Your task to perform on an android device: toggle show notifications on the lock screen Image 0: 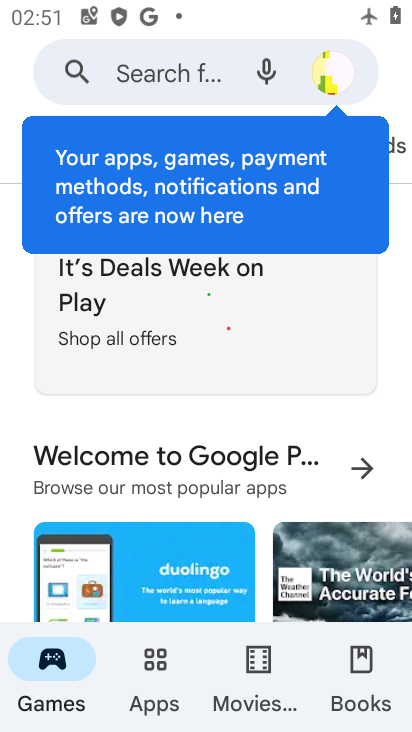
Step 0: press home button
Your task to perform on an android device: toggle show notifications on the lock screen Image 1: 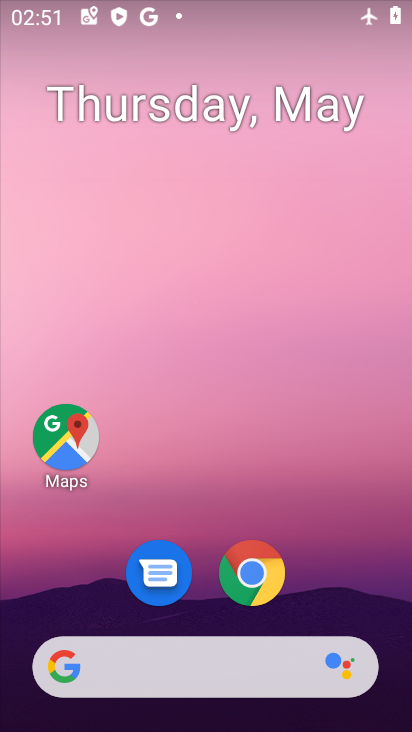
Step 1: drag from (316, 582) to (319, 252)
Your task to perform on an android device: toggle show notifications on the lock screen Image 2: 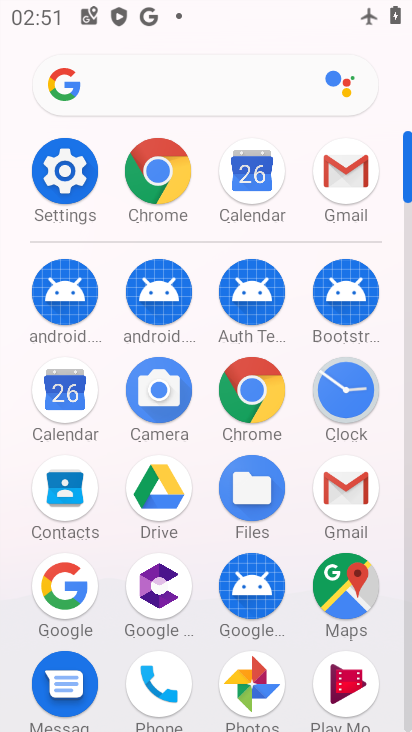
Step 2: click (69, 170)
Your task to perform on an android device: toggle show notifications on the lock screen Image 3: 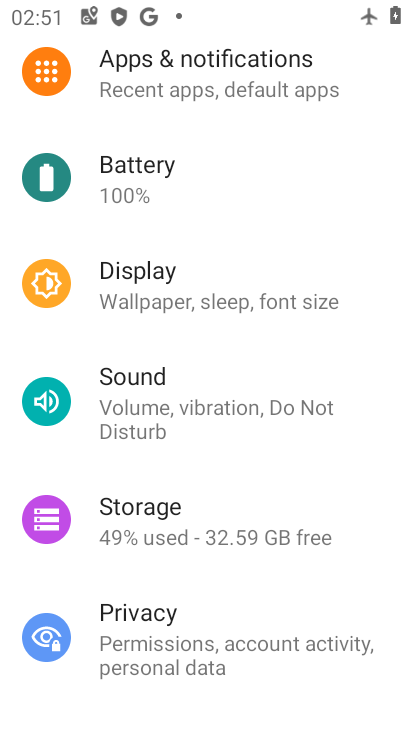
Step 3: click (196, 77)
Your task to perform on an android device: toggle show notifications on the lock screen Image 4: 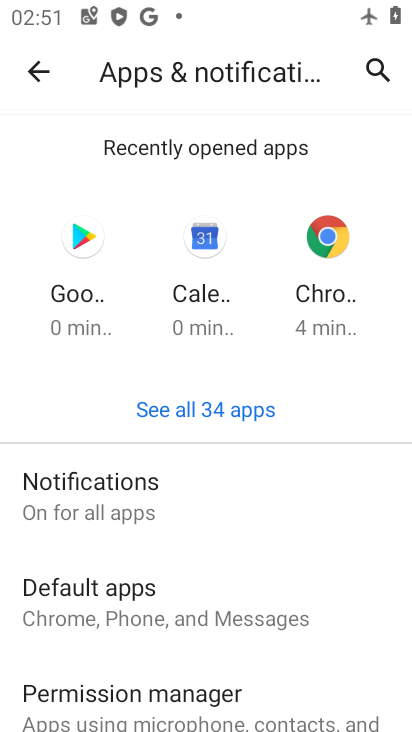
Step 4: click (145, 519)
Your task to perform on an android device: toggle show notifications on the lock screen Image 5: 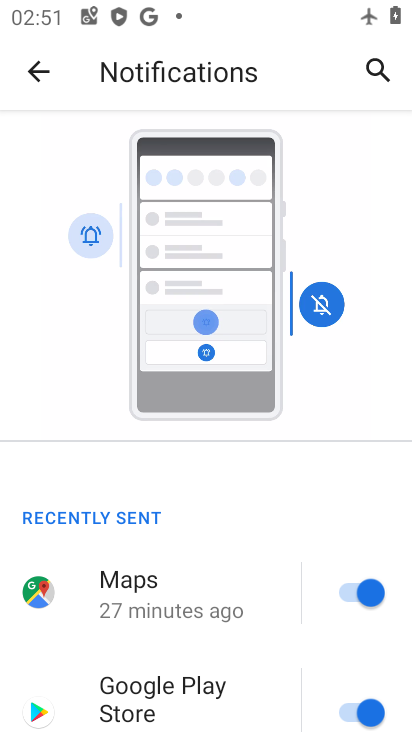
Step 5: drag from (165, 609) to (225, 328)
Your task to perform on an android device: toggle show notifications on the lock screen Image 6: 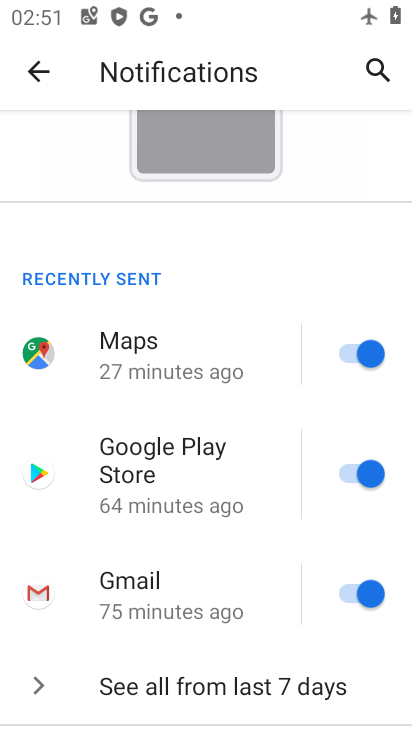
Step 6: drag from (190, 604) to (219, 349)
Your task to perform on an android device: toggle show notifications on the lock screen Image 7: 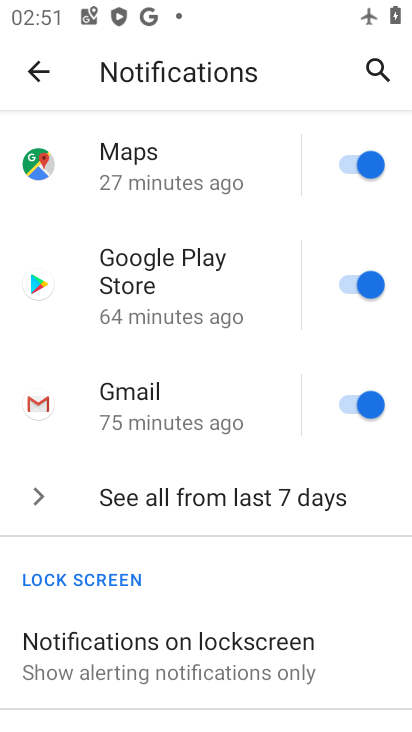
Step 7: click (180, 646)
Your task to perform on an android device: toggle show notifications on the lock screen Image 8: 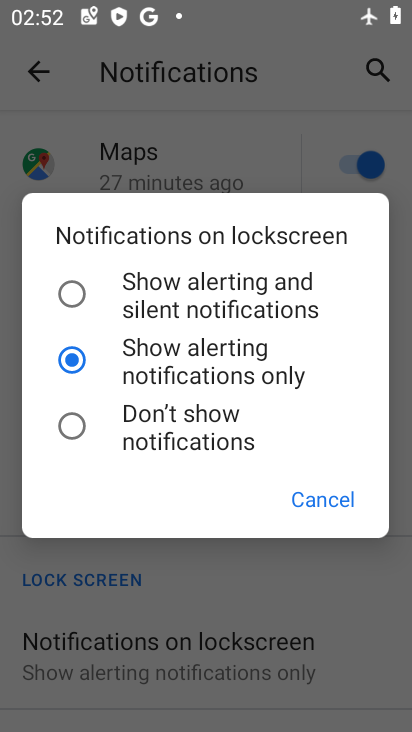
Step 8: click (143, 280)
Your task to perform on an android device: toggle show notifications on the lock screen Image 9: 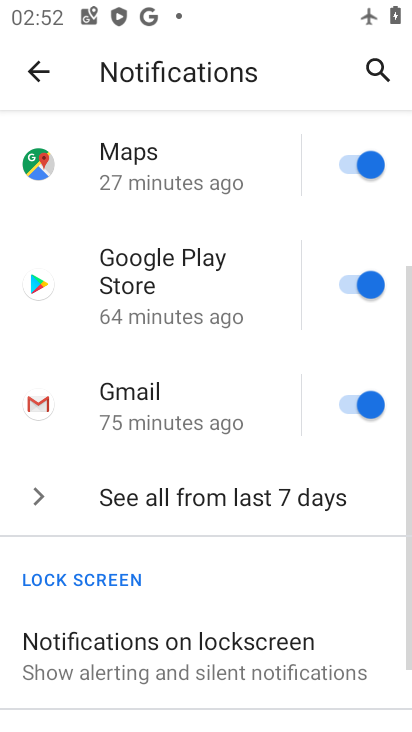
Step 9: task complete